Your task to perform on an android device: turn off improve location accuracy Image 0: 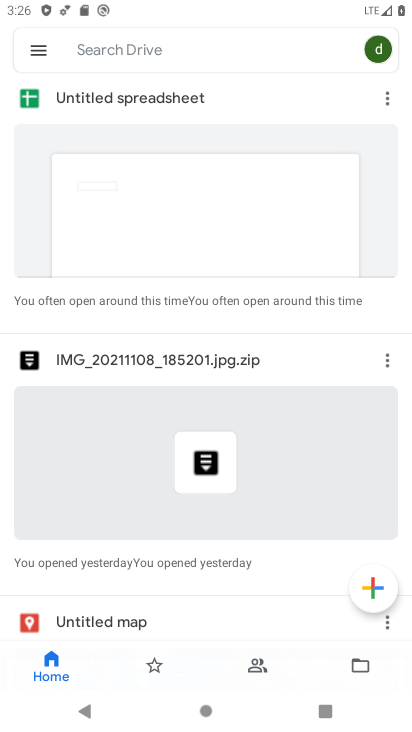
Step 0: press home button
Your task to perform on an android device: turn off improve location accuracy Image 1: 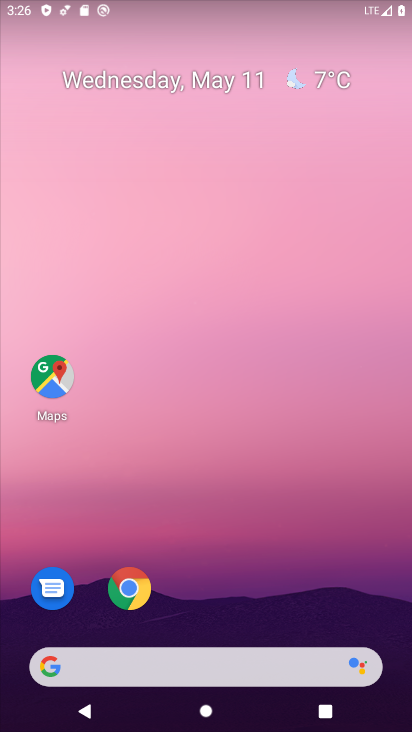
Step 1: drag from (237, 715) to (236, 247)
Your task to perform on an android device: turn off improve location accuracy Image 2: 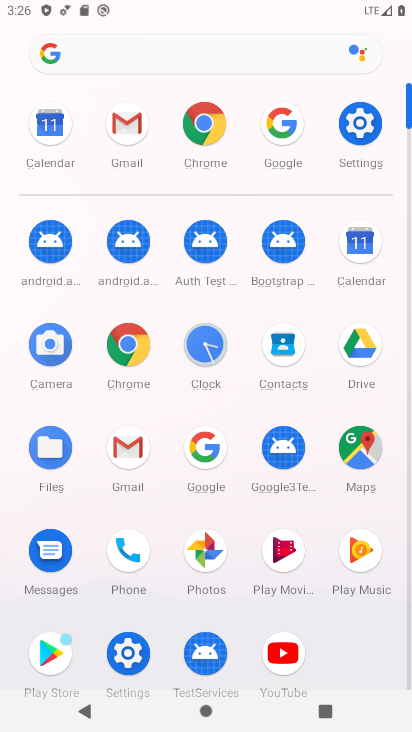
Step 2: click (362, 116)
Your task to perform on an android device: turn off improve location accuracy Image 3: 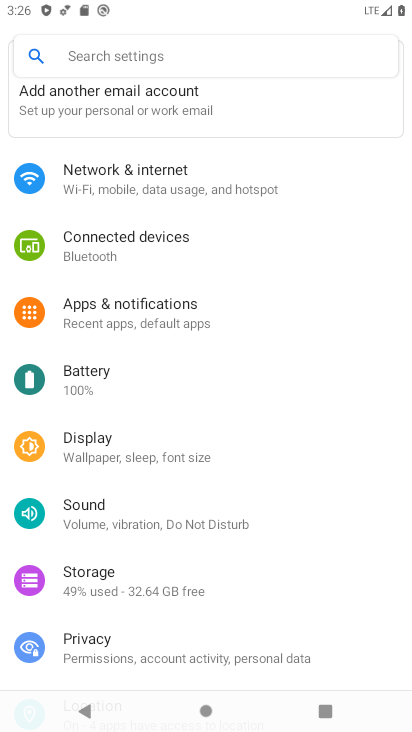
Step 3: drag from (147, 626) to (162, 142)
Your task to perform on an android device: turn off improve location accuracy Image 4: 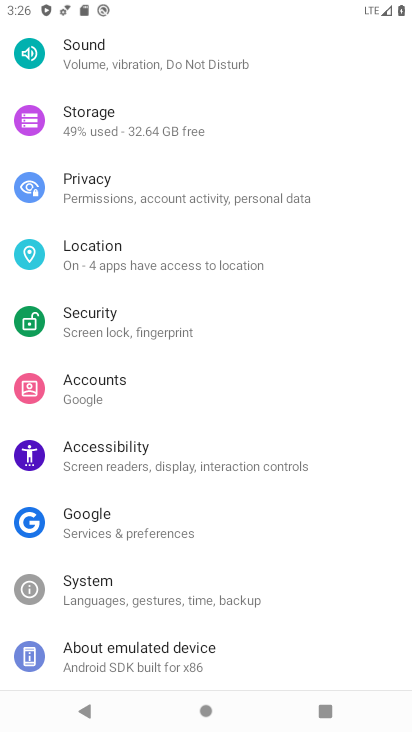
Step 4: click (88, 261)
Your task to perform on an android device: turn off improve location accuracy Image 5: 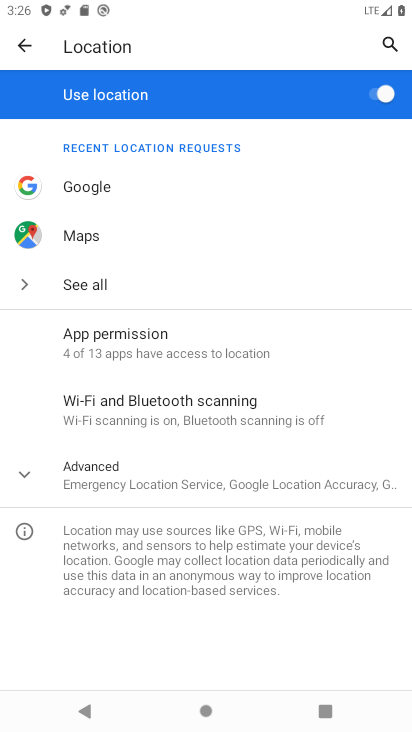
Step 5: click (101, 474)
Your task to perform on an android device: turn off improve location accuracy Image 6: 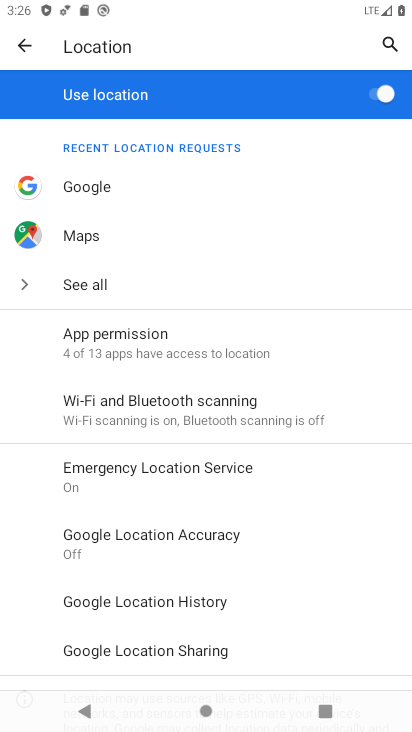
Step 6: click (181, 530)
Your task to perform on an android device: turn off improve location accuracy Image 7: 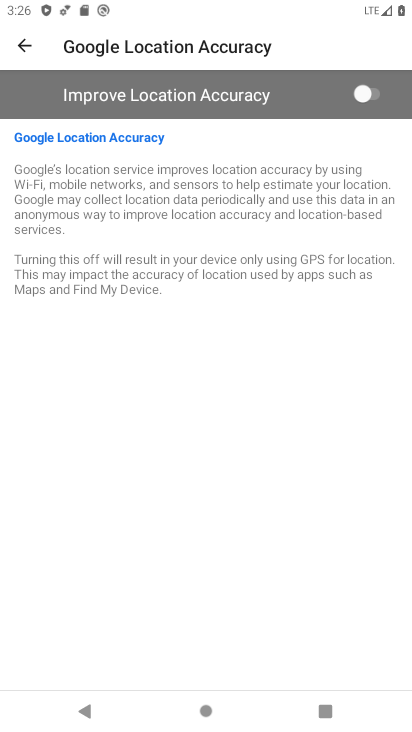
Step 7: task complete